Your task to perform on an android device: Do I have any events today? Image 0: 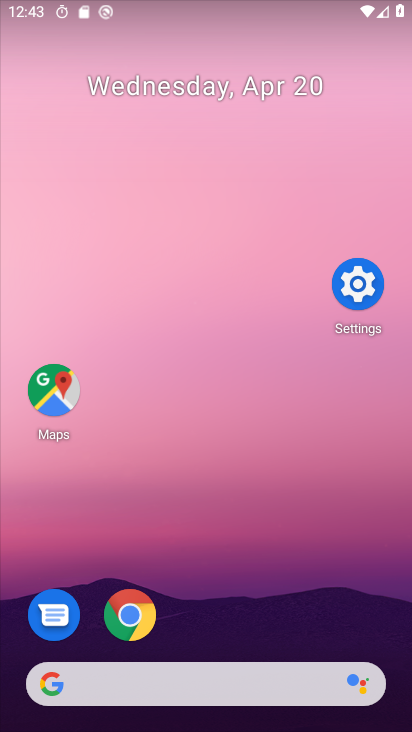
Step 0: drag from (188, 630) to (331, 40)
Your task to perform on an android device: Do I have any events today? Image 1: 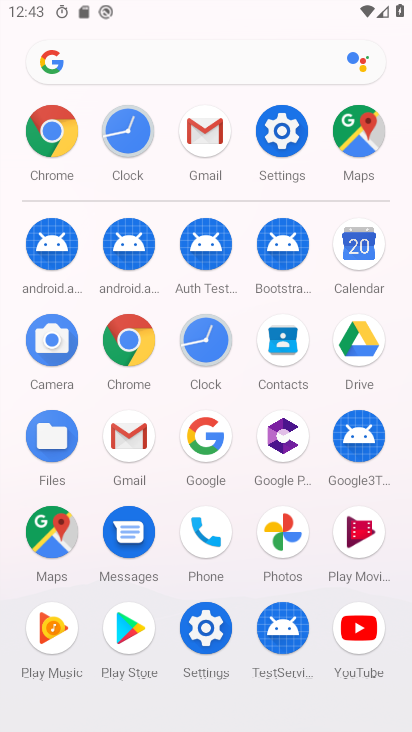
Step 1: click (137, 334)
Your task to perform on an android device: Do I have any events today? Image 2: 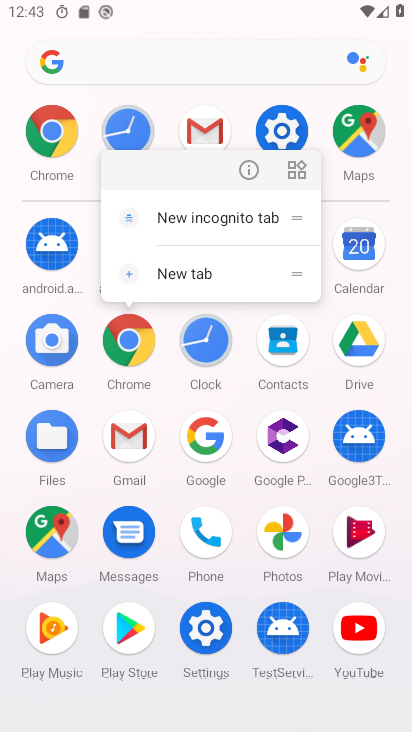
Step 2: click (352, 247)
Your task to perform on an android device: Do I have any events today? Image 3: 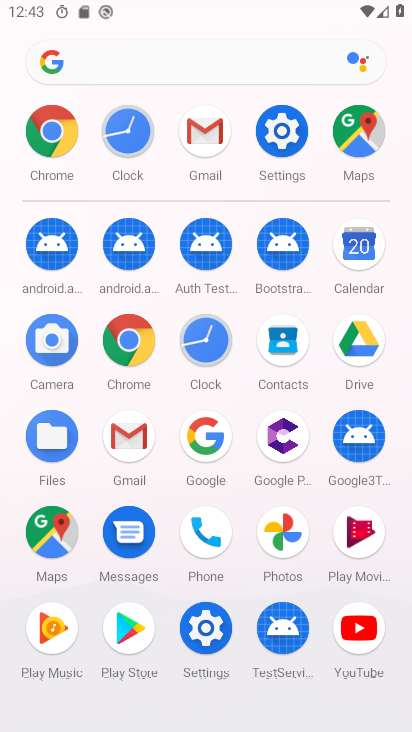
Step 3: click (357, 244)
Your task to perform on an android device: Do I have any events today? Image 4: 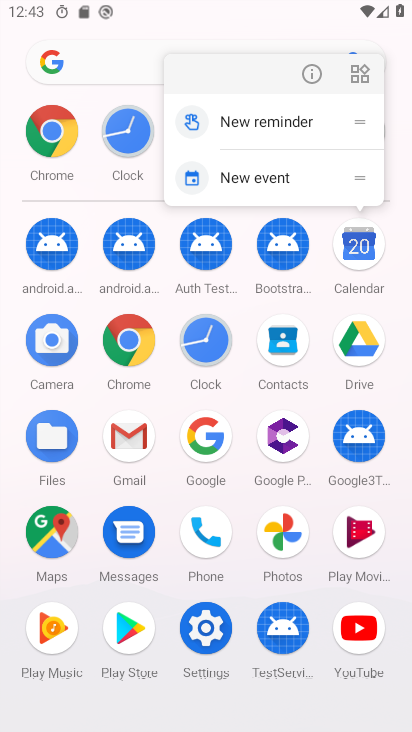
Step 4: click (306, 76)
Your task to perform on an android device: Do I have any events today? Image 5: 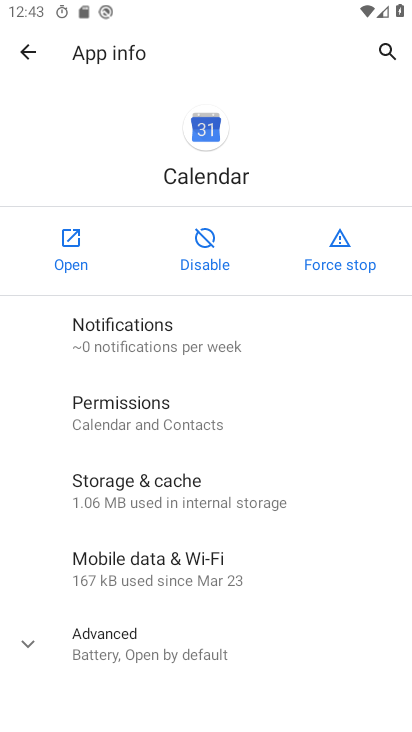
Step 5: click (76, 229)
Your task to perform on an android device: Do I have any events today? Image 6: 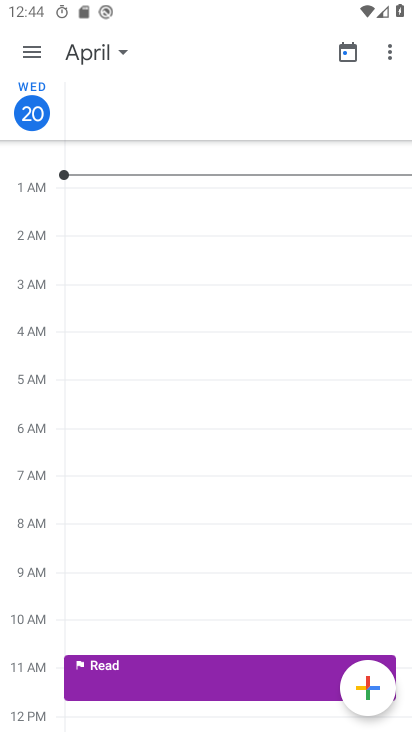
Step 6: drag from (212, 388) to (305, 119)
Your task to perform on an android device: Do I have any events today? Image 7: 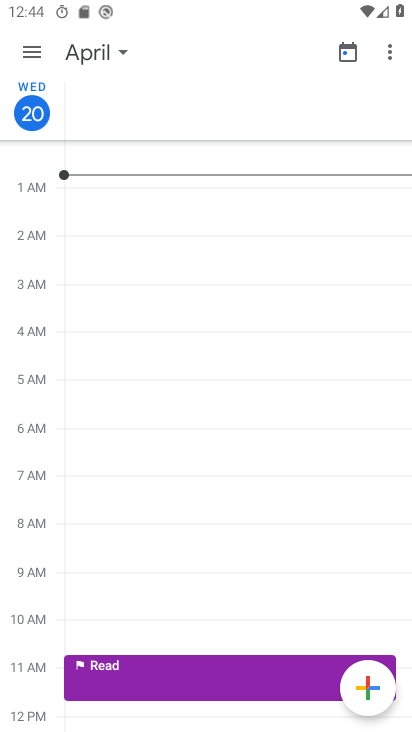
Step 7: click (86, 43)
Your task to perform on an android device: Do I have any events today? Image 8: 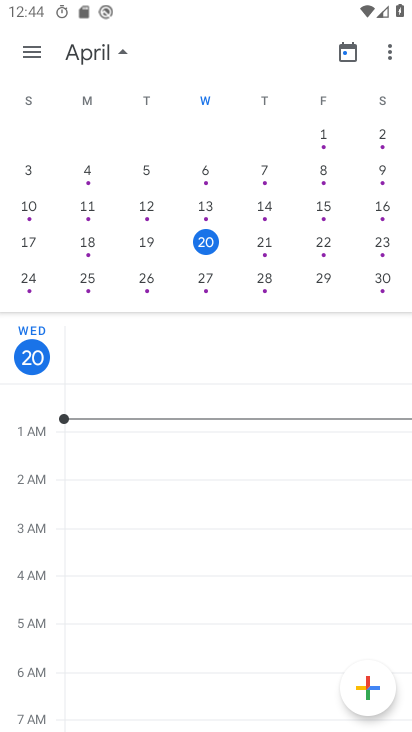
Step 8: task complete